Your task to perform on an android device: turn off airplane mode Image 0: 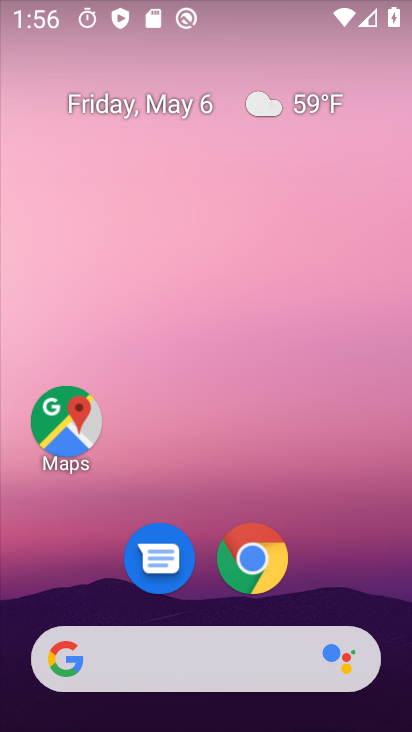
Step 0: drag from (217, 725) to (208, 234)
Your task to perform on an android device: turn off airplane mode Image 1: 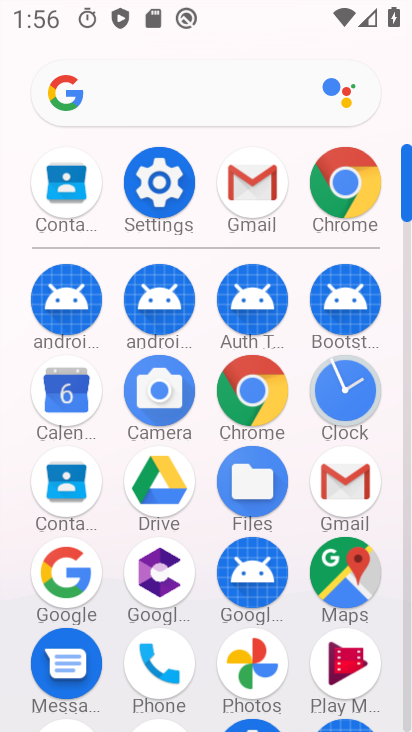
Step 1: click (156, 188)
Your task to perform on an android device: turn off airplane mode Image 2: 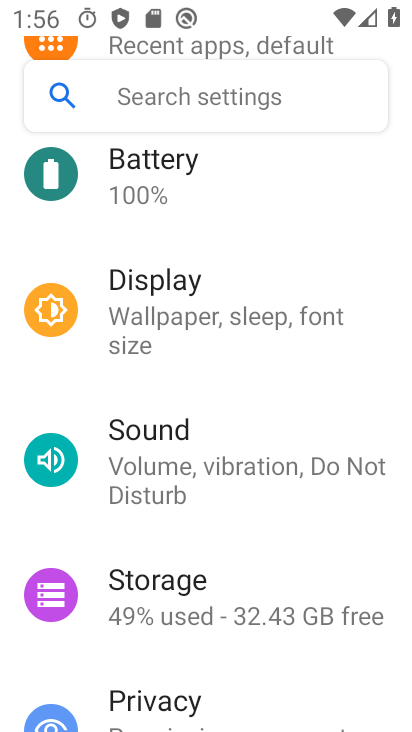
Step 2: drag from (256, 202) to (255, 566)
Your task to perform on an android device: turn off airplane mode Image 3: 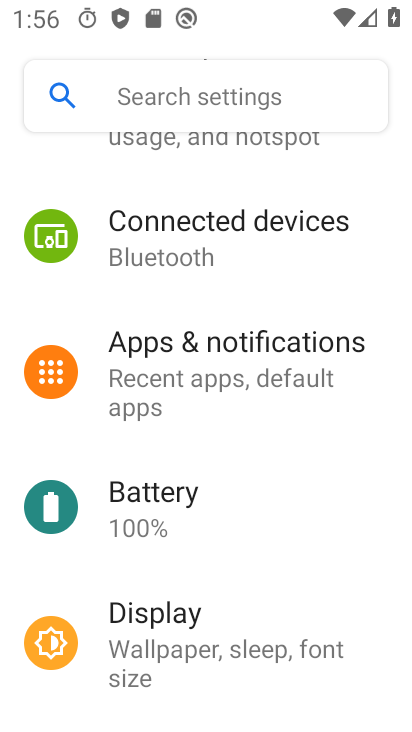
Step 3: drag from (240, 183) to (235, 680)
Your task to perform on an android device: turn off airplane mode Image 4: 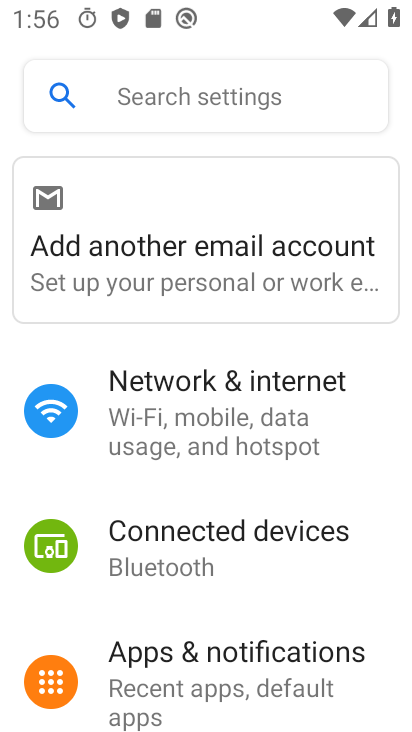
Step 4: click (209, 434)
Your task to perform on an android device: turn off airplane mode Image 5: 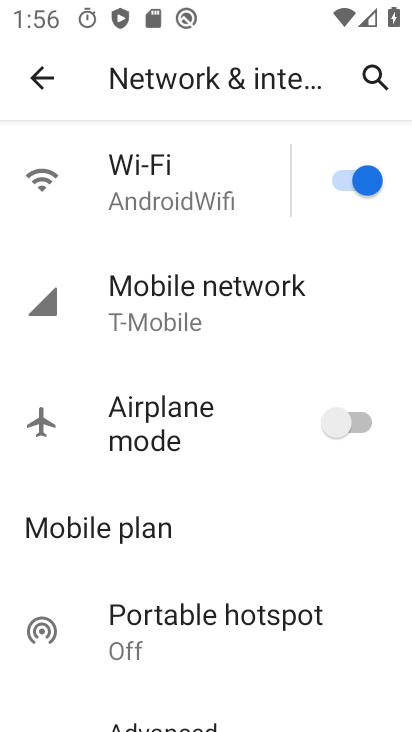
Step 5: task complete